Your task to perform on an android device: refresh tabs in the chrome app Image 0: 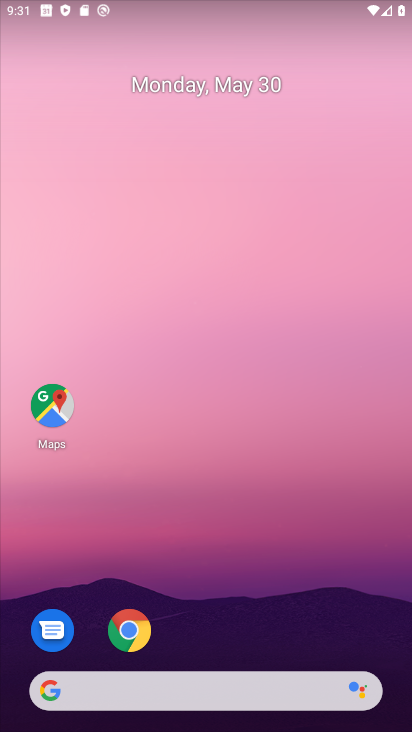
Step 0: click (126, 652)
Your task to perform on an android device: refresh tabs in the chrome app Image 1: 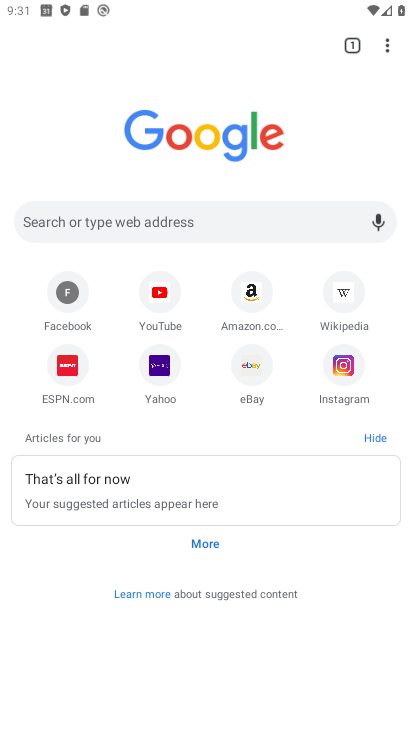
Step 1: click (346, 47)
Your task to perform on an android device: refresh tabs in the chrome app Image 2: 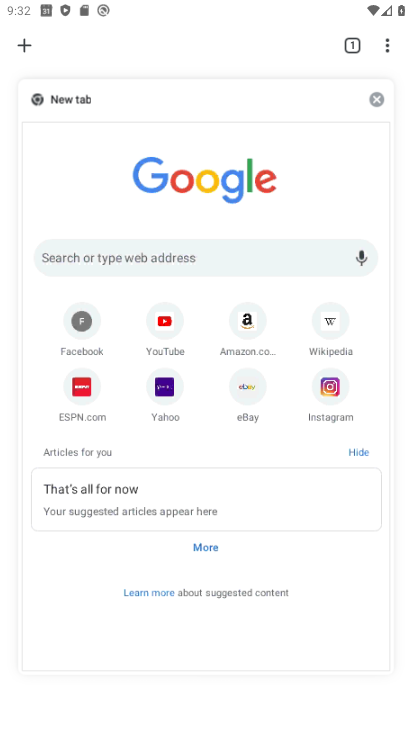
Step 2: task complete